Your task to perform on an android device: Open wifi settings Image 0: 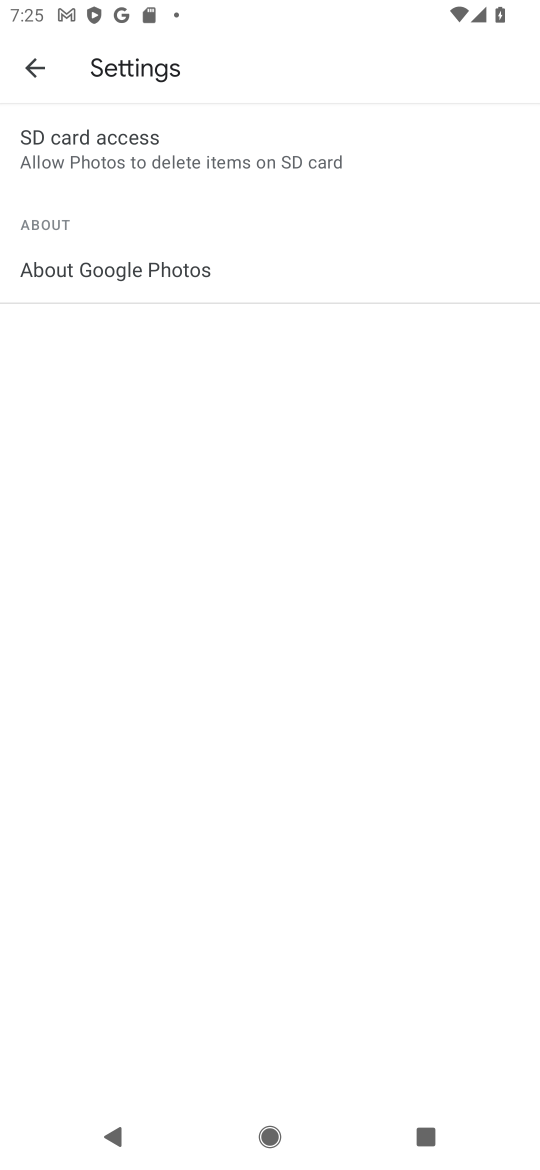
Step 0: press home button
Your task to perform on an android device: Open wifi settings Image 1: 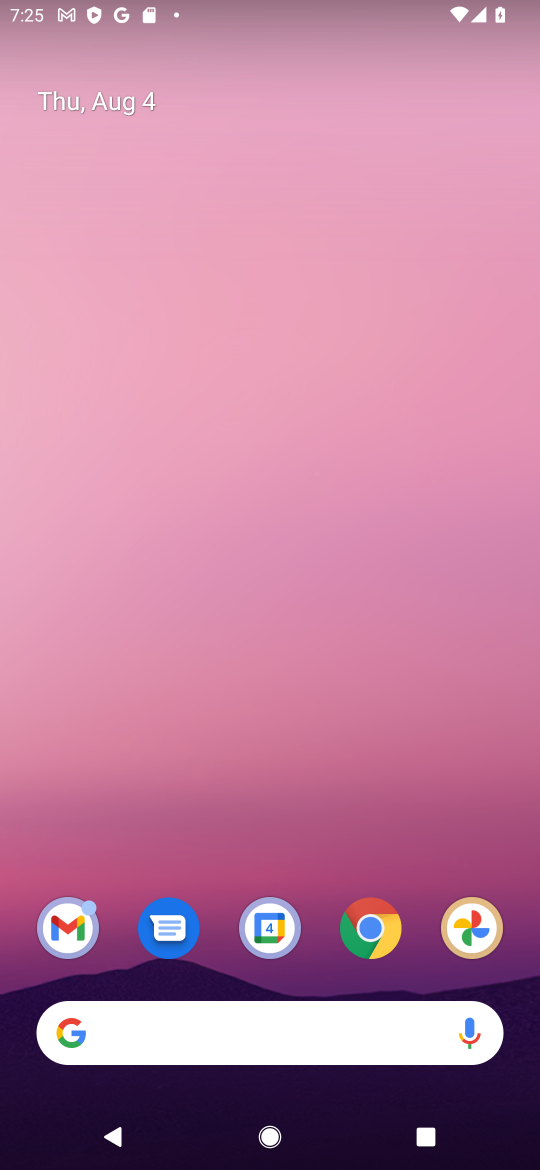
Step 1: drag from (221, 929) to (461, 17)
Your task to perform on an android device: Open wifi settings Image 2: 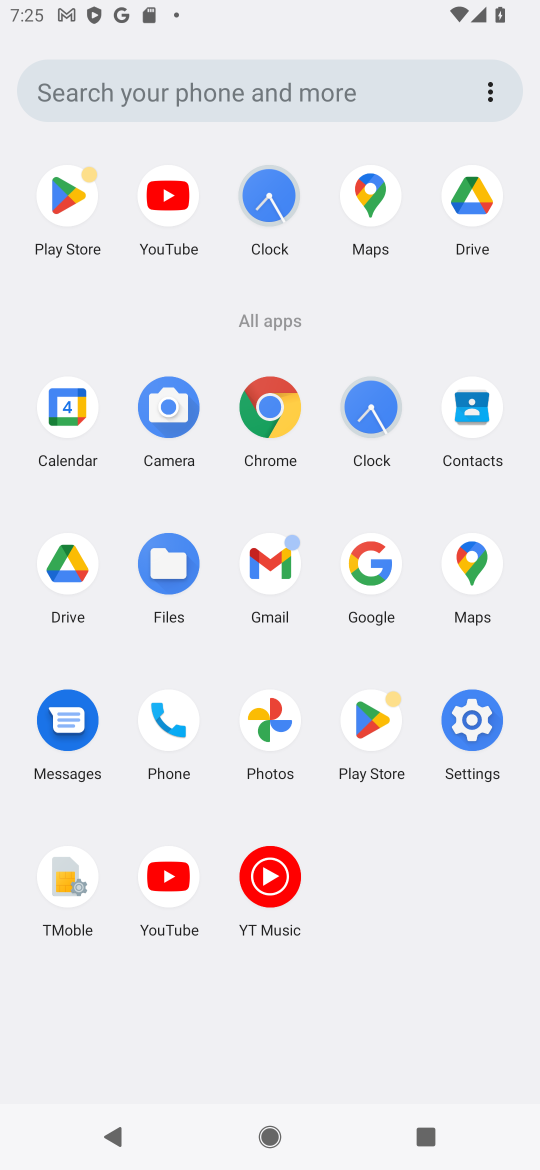
Step 2: click (470, 743)
Your task to perform on an android device: Open wifi settings Image 3: 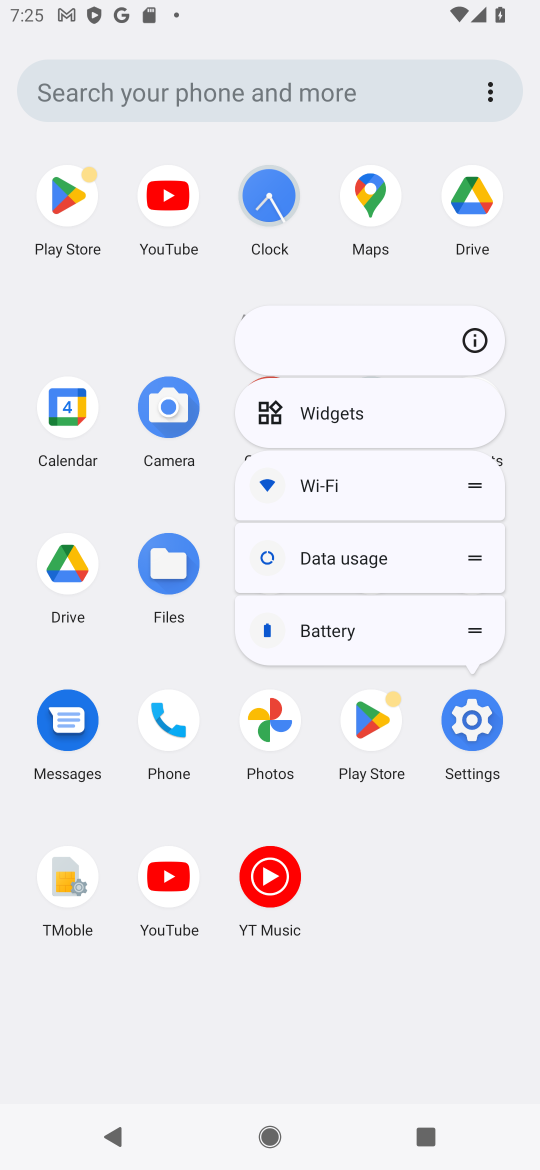
Step 3: click (493, 747)
Your task to perform on an android device: Open wifi settings Image 4: 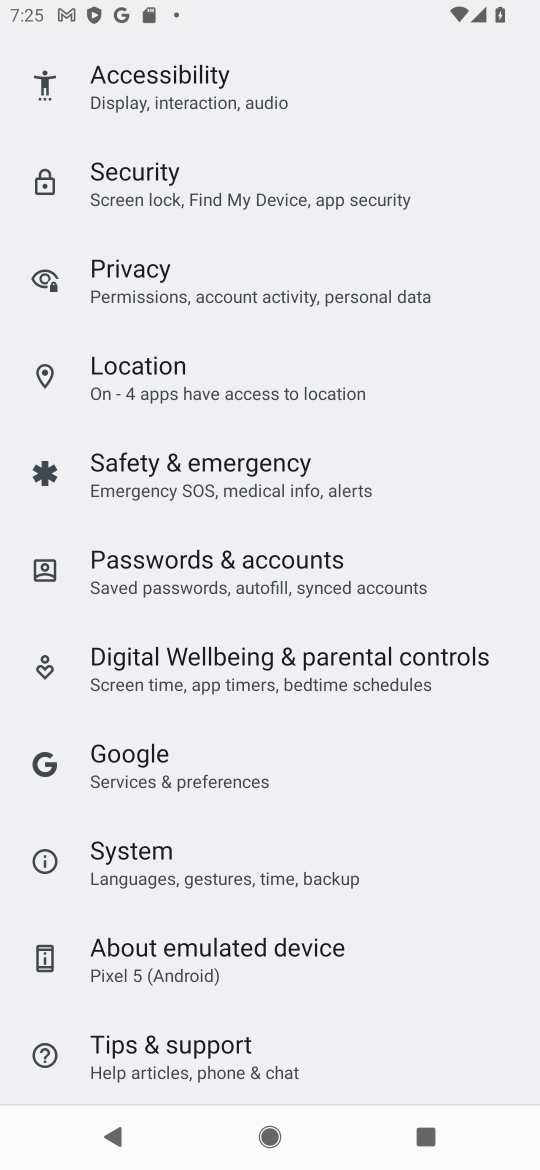
Step 4: drag from (260, 535) to (283, 1110)
Your task to perform on an android device: Open wifi settings Image 5: 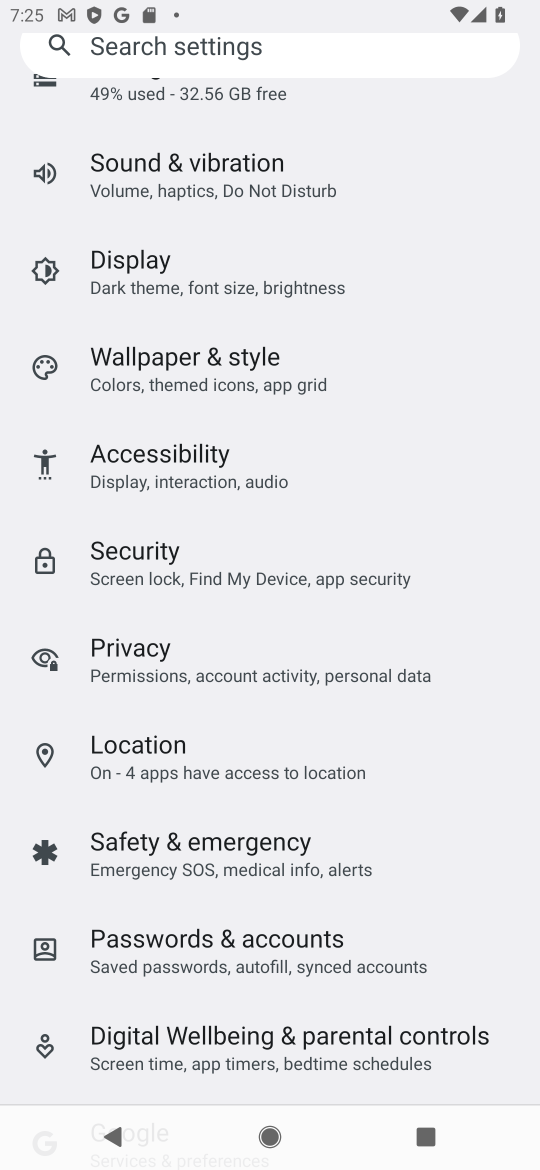
Step 5: drag from (210, 212) to (273, 991)
Your task to perform on an android device: Open wifi settings Image 6: 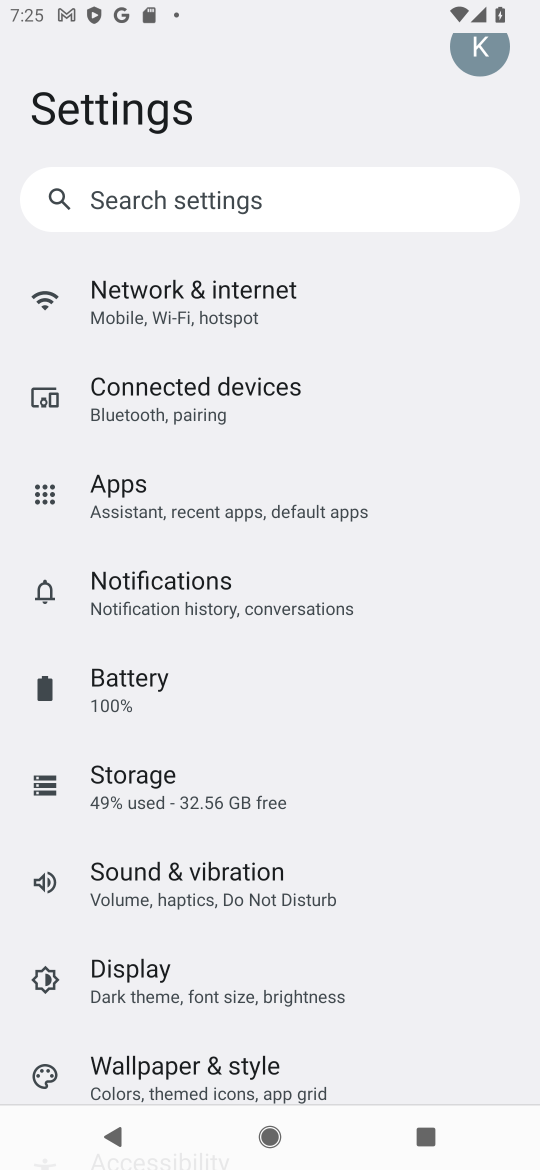
Step 6: click (184, 308)
Your task to perform on an android device: Open wifi settings Image 7: 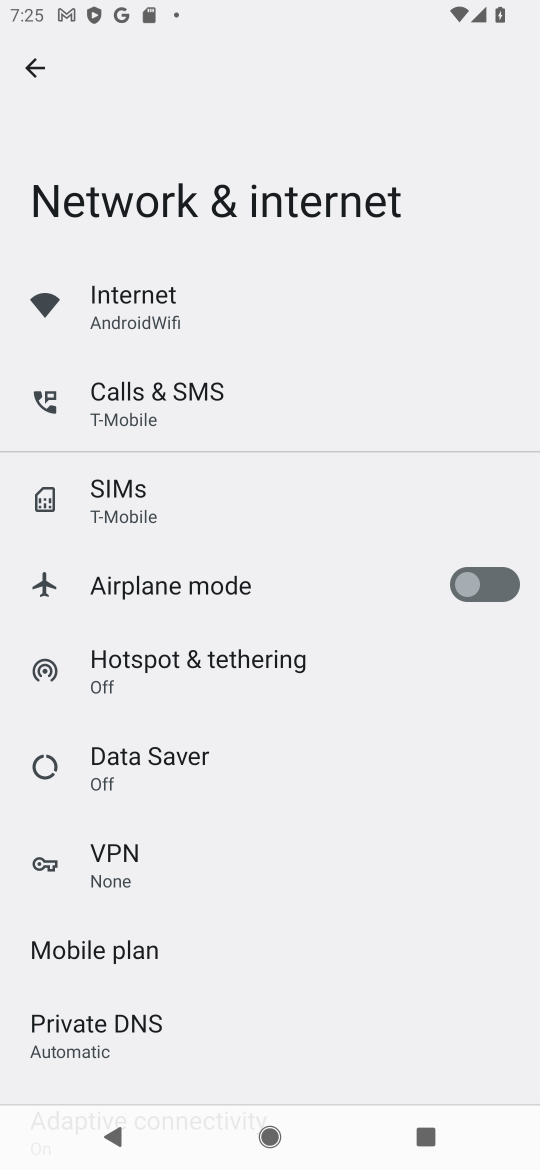
Step 7: click (162, 310)
Your task to perform on an android device: Open wifi settings Image 8: 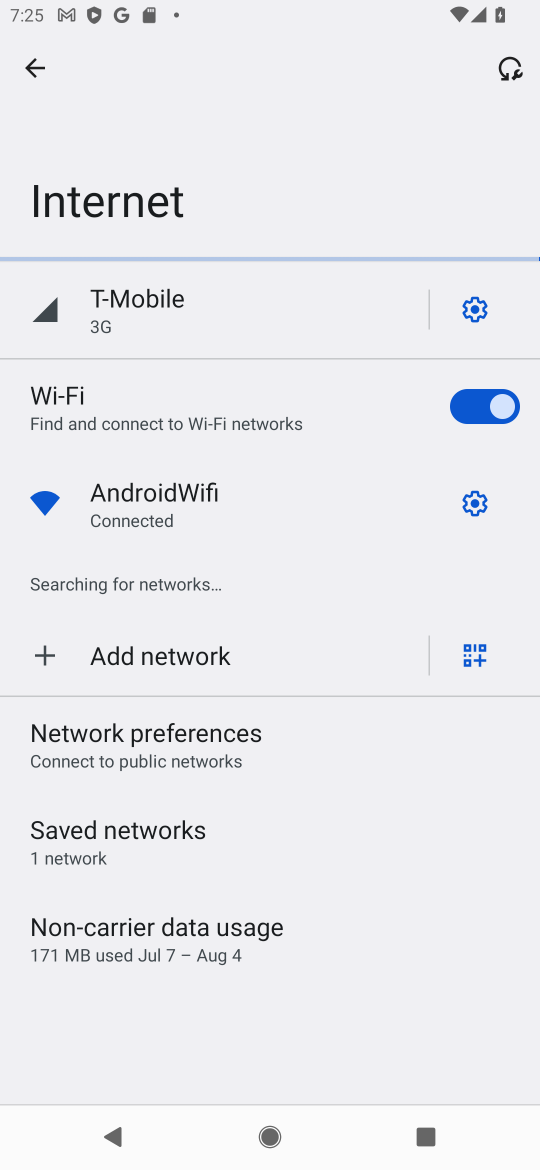
Step 8: task complete